Your task to perform on an android device: Open Chrome and go to the settings page Image 0: 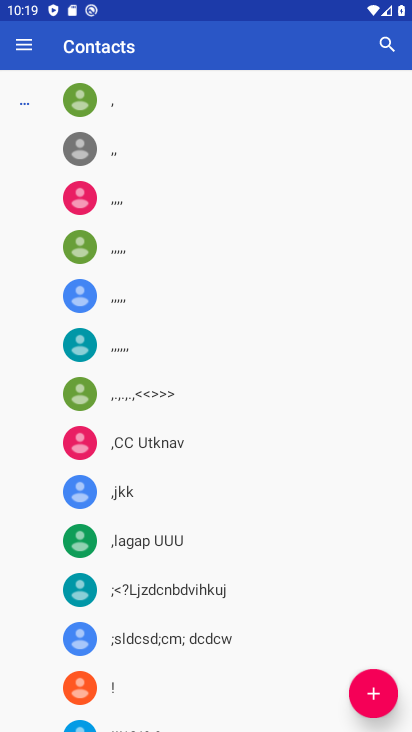
Step 0: press back button
Your task to perform on an android device: Open Chrome and go to the settings page Image 1: 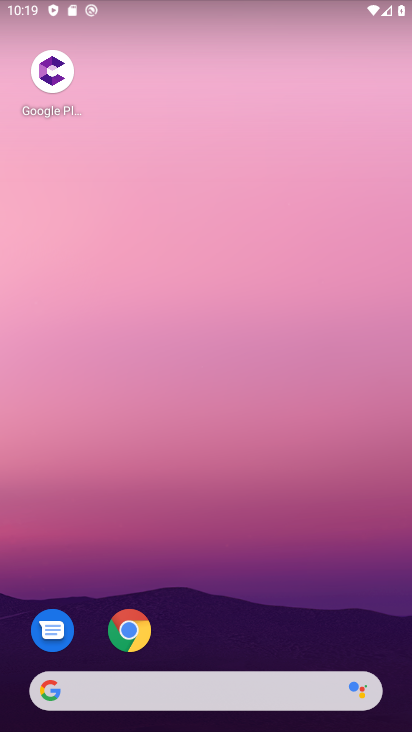
Step 1: click (130, 625)
Your task to perform on an android device: Open Chrome and go to the settings page Image 2: 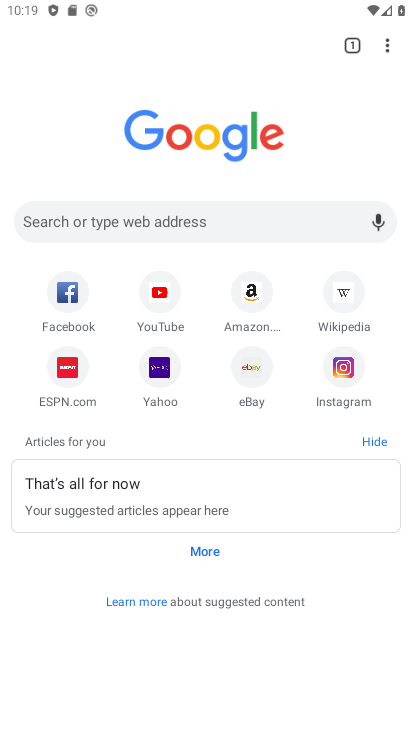
Step 2: task complete